Your task to perform on an android device: Open Youtube and go to the subscriptions tab Image 0: 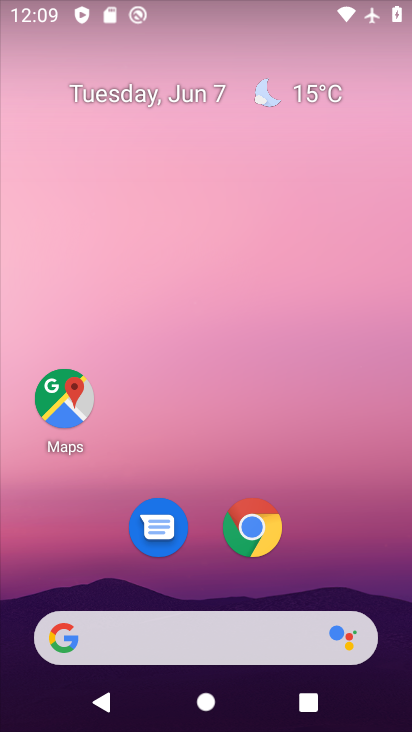
Step 0: drag from (284, 613) to (284, 75)
Your task to perform on an android device: Open Youtube and go to the subscriptions tab Image 1: 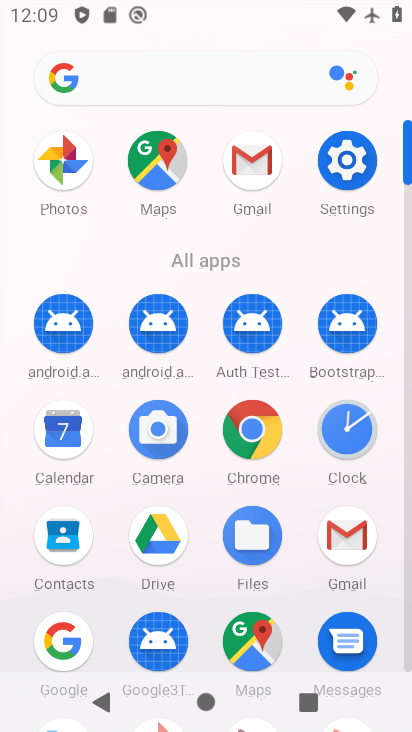
Step 1: drag from (307, 511) to (312, 261)
Your task to perform on an android device: Open Youtube and go to the subscriptions tab Image 2: 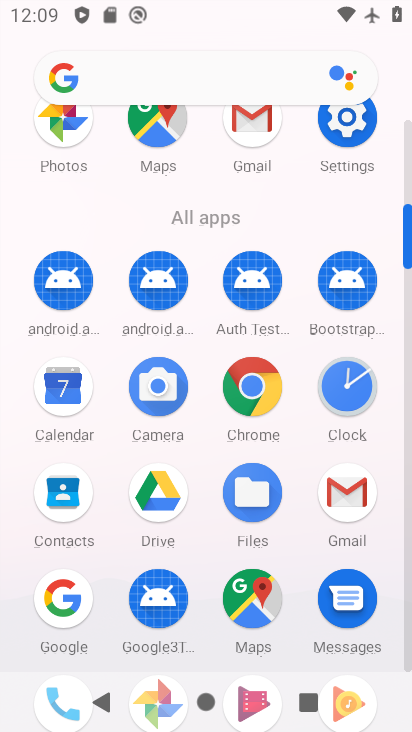
Step 2: drag from (311, 538) to (268, 311)
Your task to perform on an android device: Open Youtube and go to the subscriptions tab Image 3: 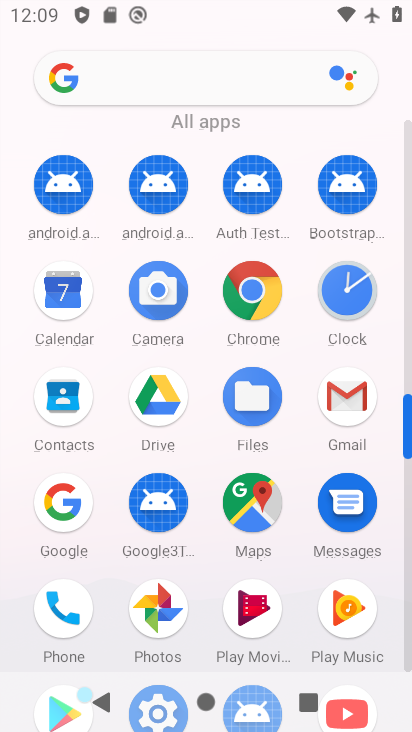
Step 3: drag from (291, 529) to (267, 300)
Your task to perform on an android device: Open Youtube and go to the subscriptions tab Image 4: 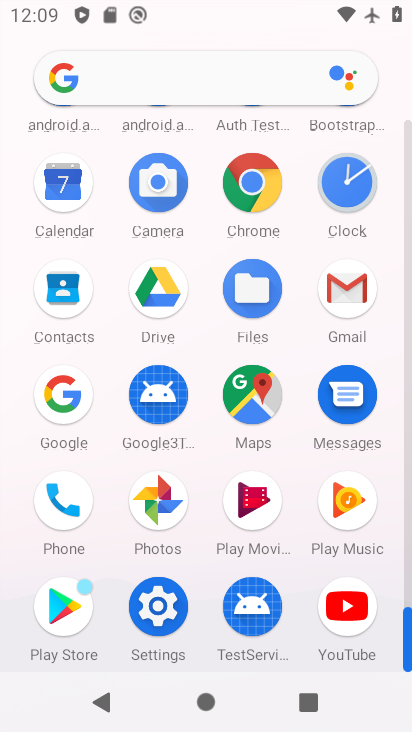
Step 4: drag from (292, 457) to (268, 299)
Your task to perform on an android device: Open Youtube and go to the subscriptions tab Image 5: 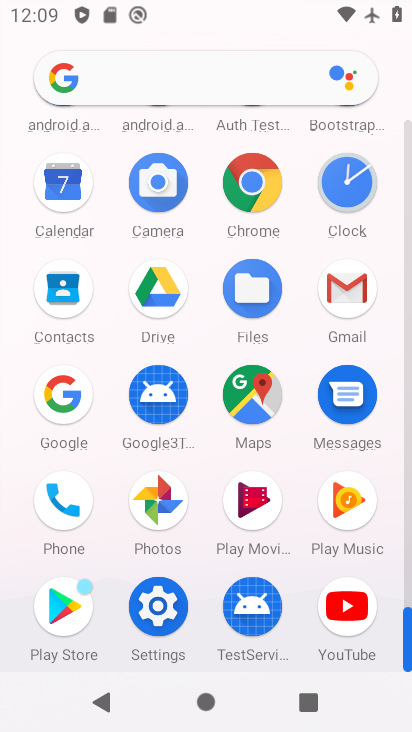
Step 5: click (344, 609)
Your task to perform on an android device: Open Youtube and go to the subscriptions tab Image 6: 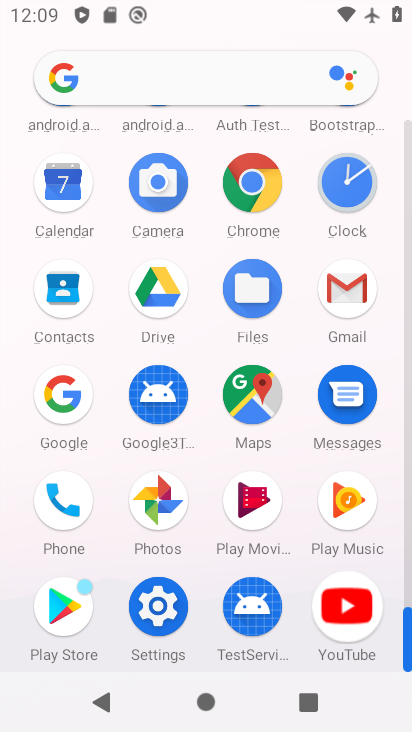
Step 6: click (343, 608)
Your task to perform on an android device: Open Youtube and go to the subscriptions tab Image 7: 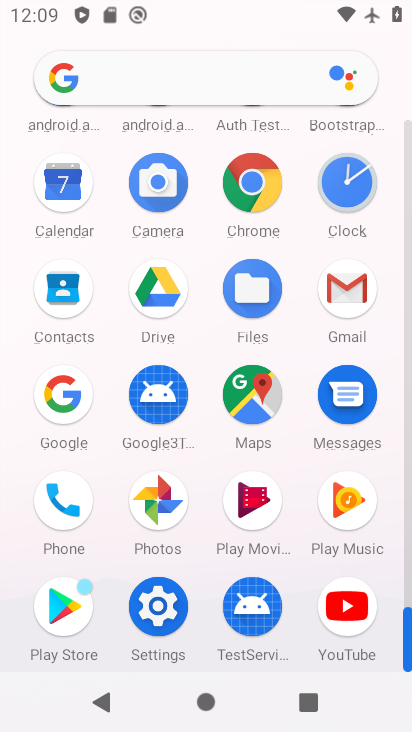
Step 7: click (343, 608)
Your task to perform on an android device: Open Youtube and go to the subscriptions tab Image 8: 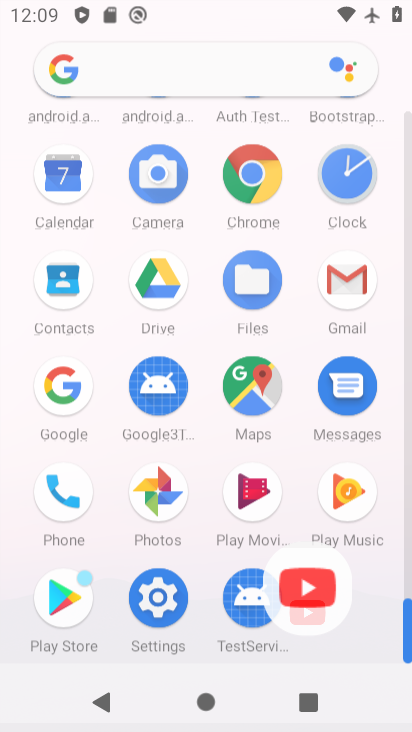
Step 8: click (342, 607)
Your task to perform on an android device: Open Youtube and go to the subscriptions tab Image 9: 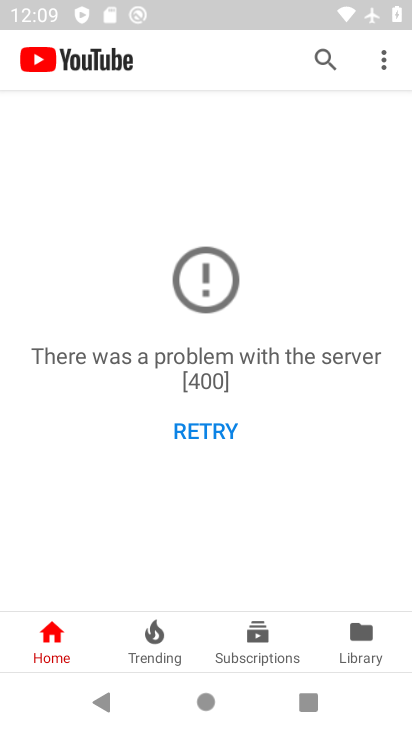
Step 9: click (263, 621)
Your task to perform on an android device: Open Youtube and go to the subscriptions tab Image 10: 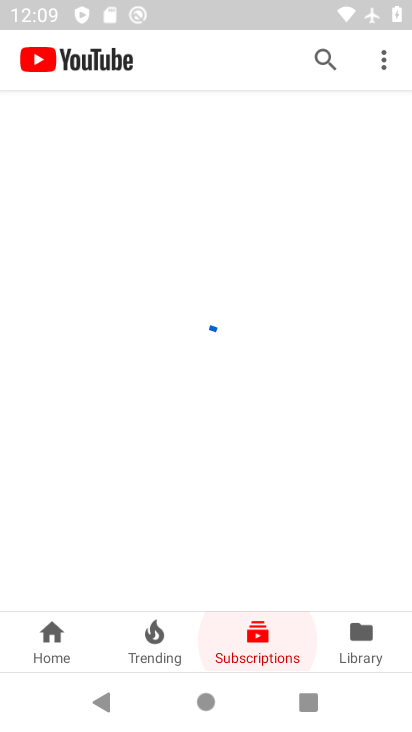
Step 10: click (263, 621)
Your task to perform on an android device: Open Youtube and go to the subscriptions tab Image 11: 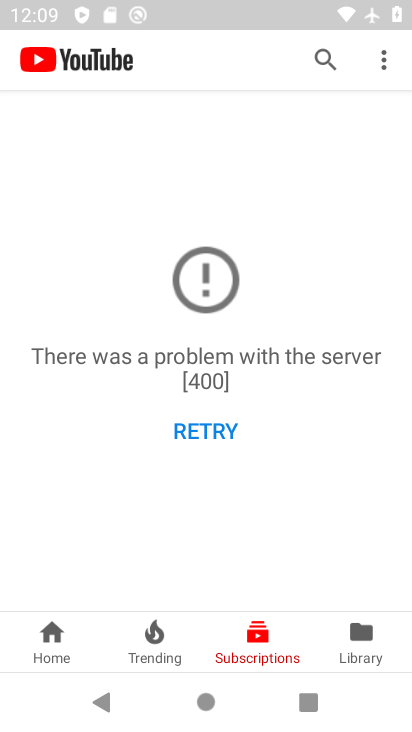
Step 11: task complete